Your task to perform on an android device: create a new album in the google photos Image 0: 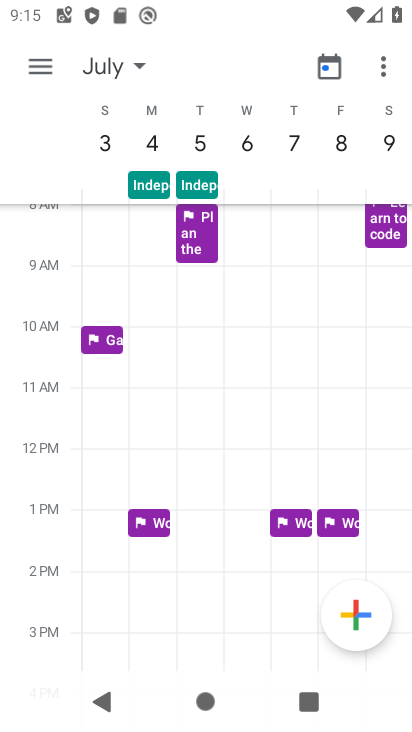
Step 0: press home button
Your task to perform on an android device: create a new album in the google photos Image 1: 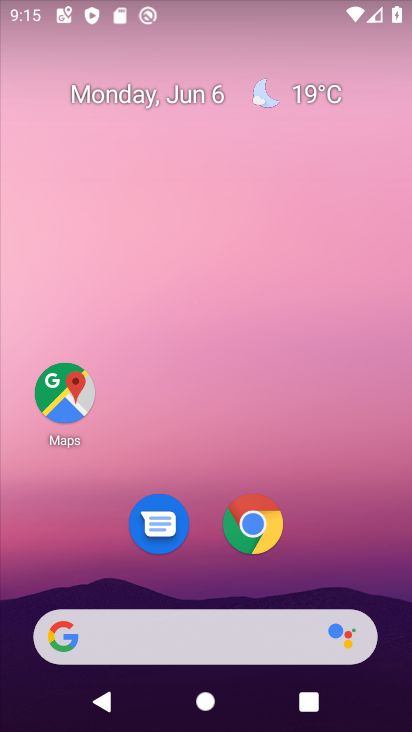
Step 1: drag from (324, 545) to (296, 21)
Your task to perform on an android device: create a new album in the google photos Image 2: 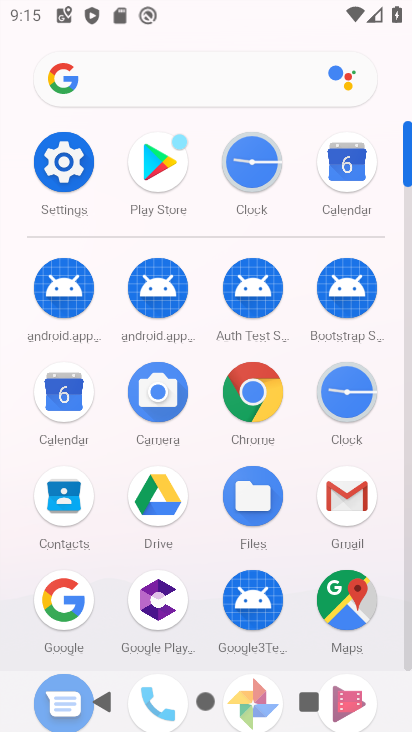
Step 2: drag from (298, 482) to (299, 330)
Your task to perform on an android device: create a new album in the google photos Image 3: 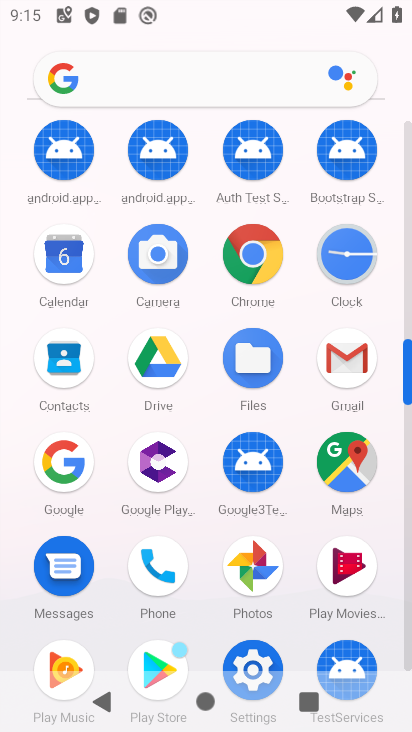
Step 3: click (260, 556)
Your task to perform on an android device: create a new album in the google photos Image 4: 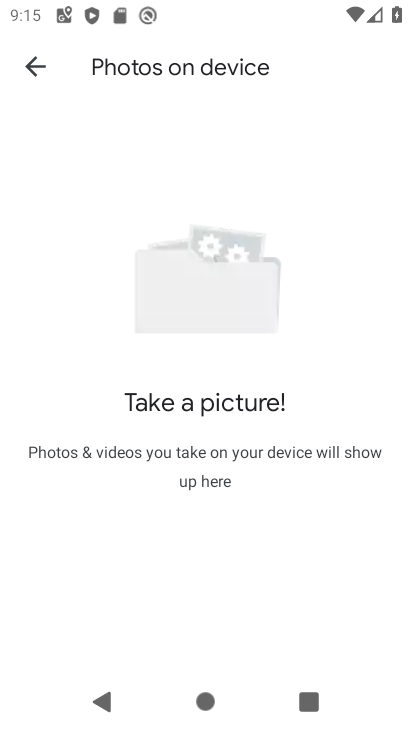
Step 4: click (38, 60)
Your task to perform on an android device: create a new album in the google photos Image 5: 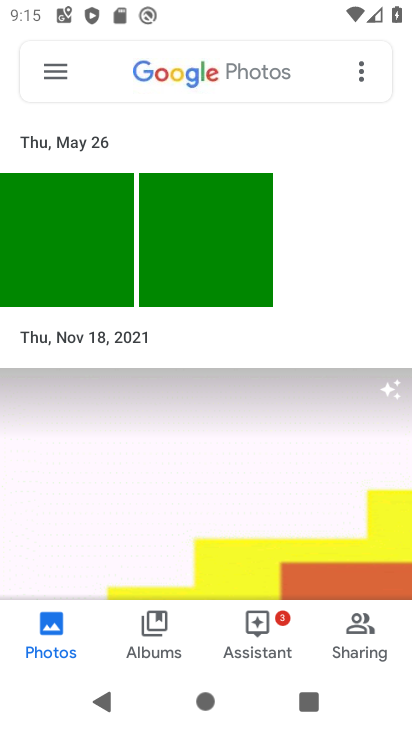
Step 5: click (156, 624)
Your task to perform on an android device: create a new album in the google photos Image 6: 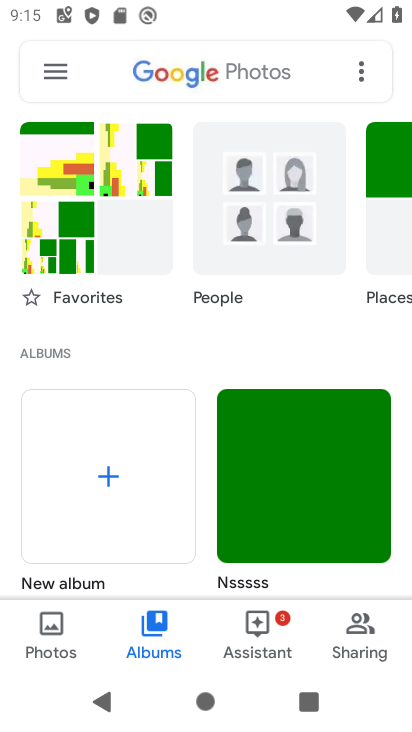
Step 6: click (104, 472)
Your task to perform on an android device: create a new album in the google photos Image 7: 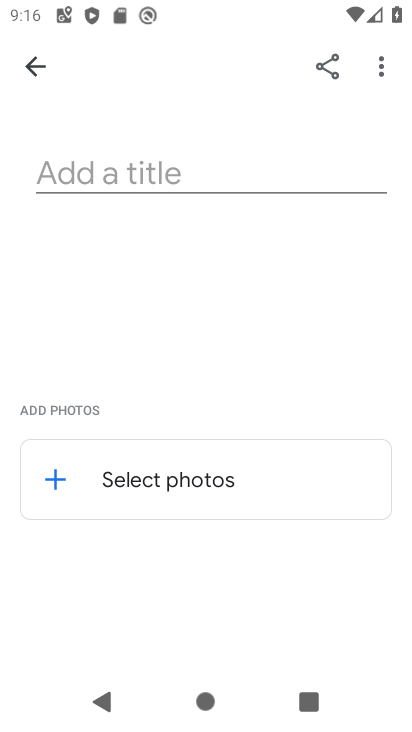
Step 7: click (135, 155)
Your task to perform on an android device: create a new album in the google photos Image 8: 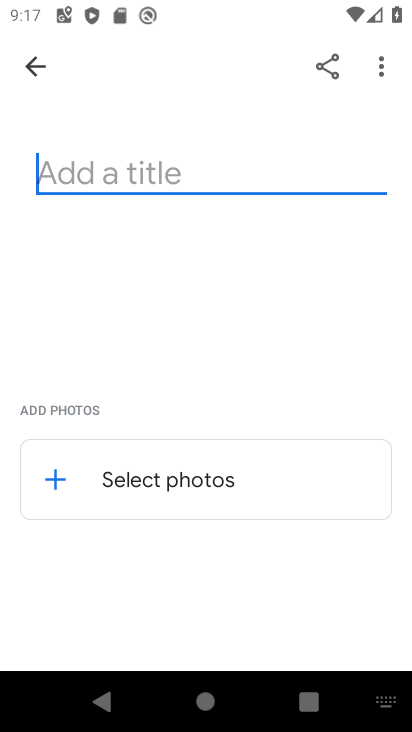
Step 8: type "SikhBodhJainHinduschSanatanah"
Your task to perform on an android device: create a new album in the google photos Image 9: 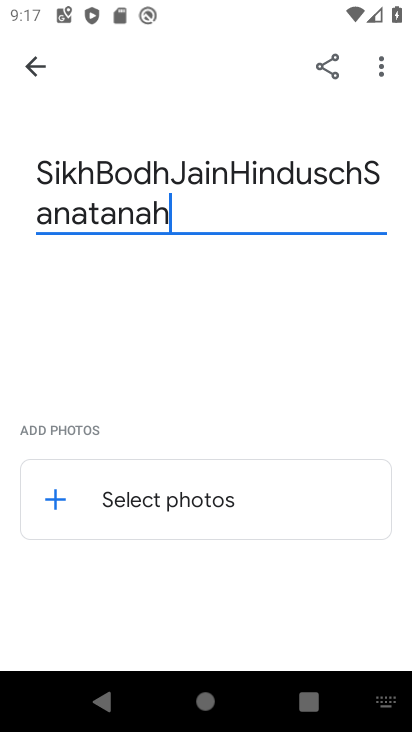
Step 9: click (62, 491)
Your task to perform on an android device: create a new album in the google photos Image 10: 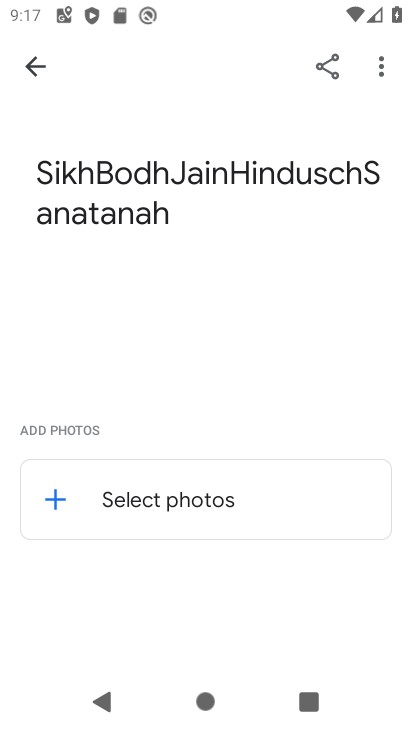
Step 10: click (82, 489)
Your task to perform on an android device: create a new album in the google photos Image 11: 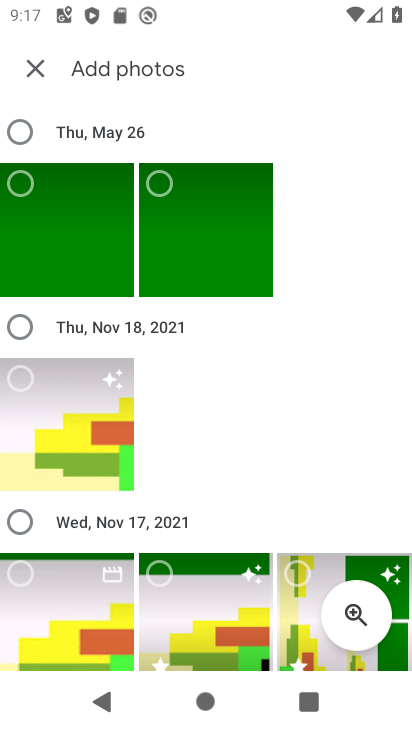
Step 11: click (25, 129)
Your task to perform on an android device: create a new album in the google photos Image 12: 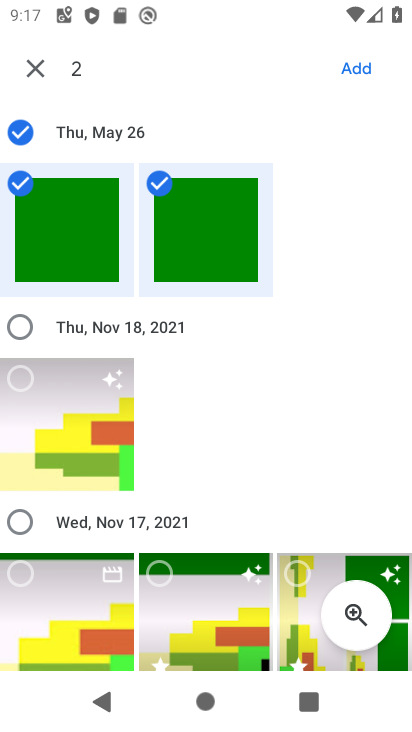
Step 12: click (350, 57)
Your task to perform on an android device: create a new album in the google photos Image 13: 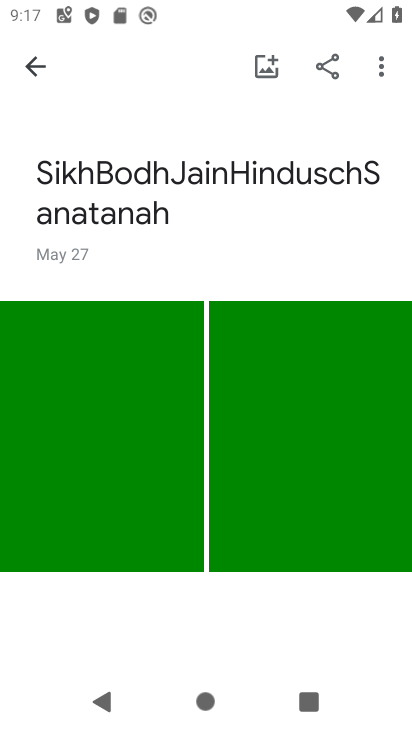
Step 13: task complete